Your task to perform on an android device: Show me the alarms in the clock app Image 0: 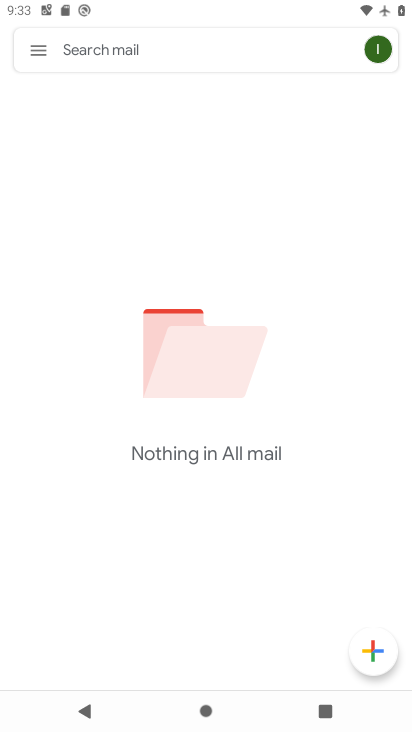
Step 0: press home button
Your task to perform on an android device: Show me the alarms in the clock app Image 1: 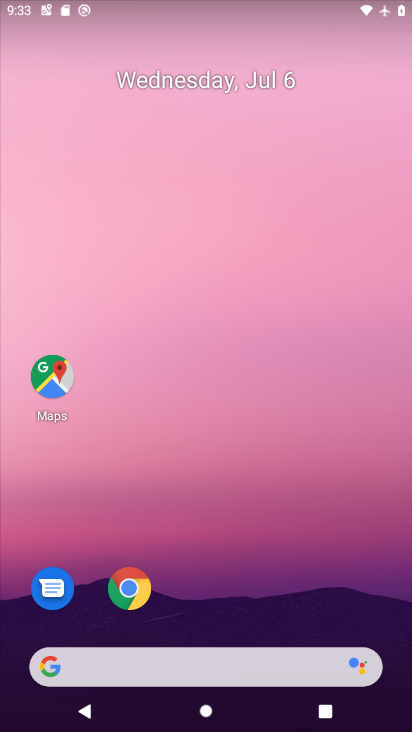
Step 1: drag from (223, 665) to (361, 82)
Your task to perform on an android device: Show me the alarms in the clock app Image 2: 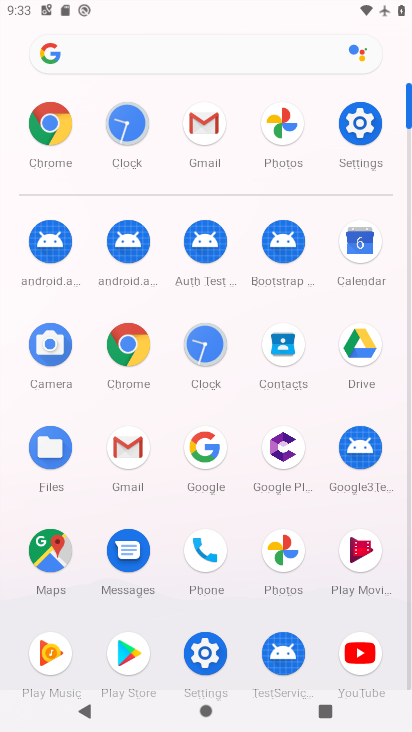
Step 2: click (192, 355)
Your task to perform on an android device: Show me the alarms in the clock app Image 3: 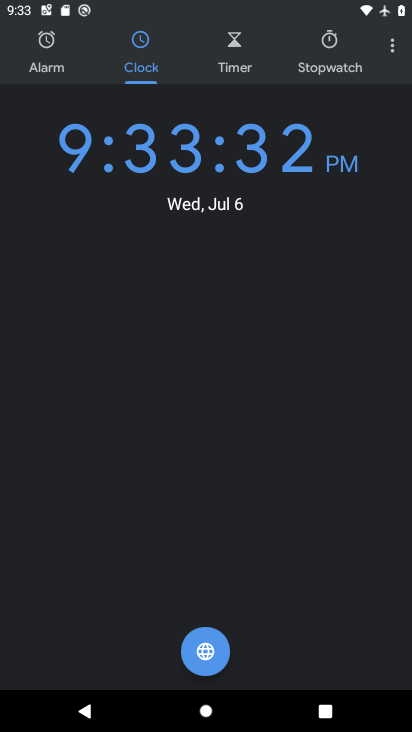
Step 3: click (40, 47)
Your task to perform on an android device: Show me the alarms in the clock app Image 4: 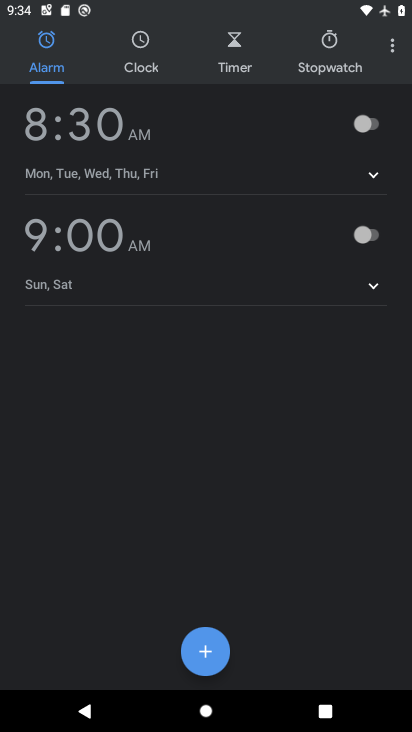
Step 4: task complete